Your task to perform on an android device: Go to battery settings Image 0: 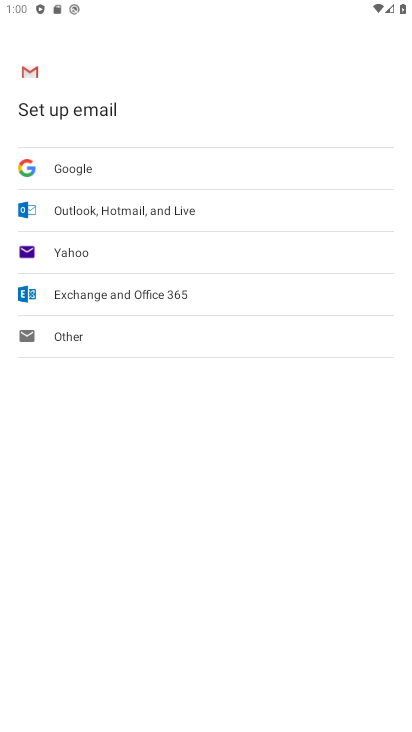
Step 0: press home button
Your task to perform on an android device: Go to battery settings Image 1: 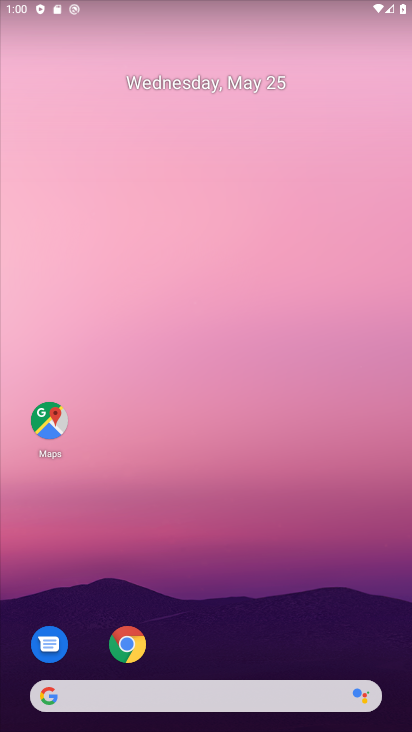
Step 1: drag from (252, 656) to (193, 164)
Your task to perform on an android device: Go to battery settings Image 2: 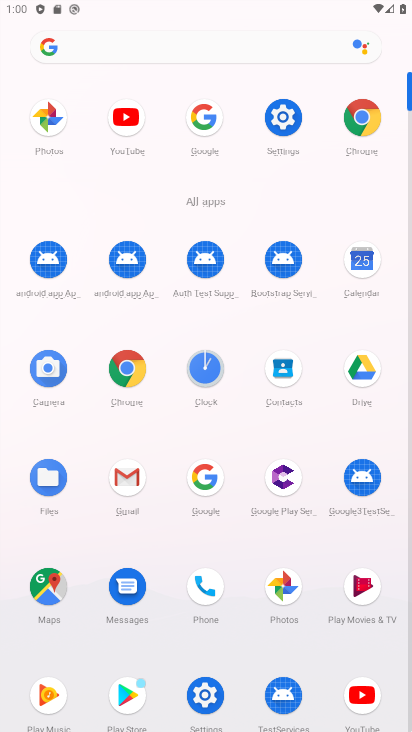
Step 2: click (296, 119)
Your task to perform on an android device: Go to battery settings Image 3: 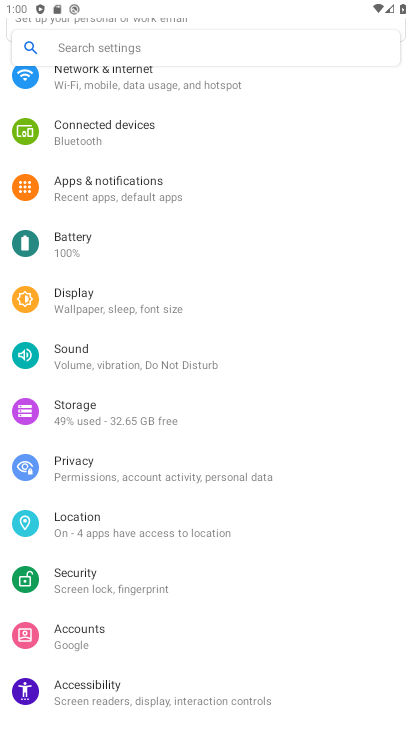
Step 3: click (104, 256)
Your task to perform on an android device: Go to battery settings Image 4: 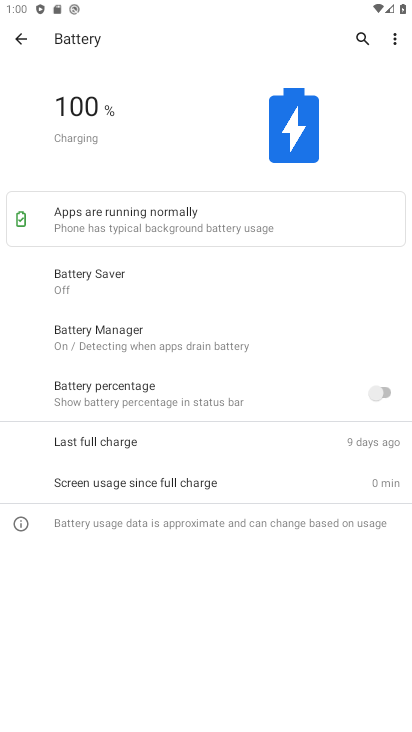
Step 4: task complete